Your task to perform on an android device: Open settings Image 0: 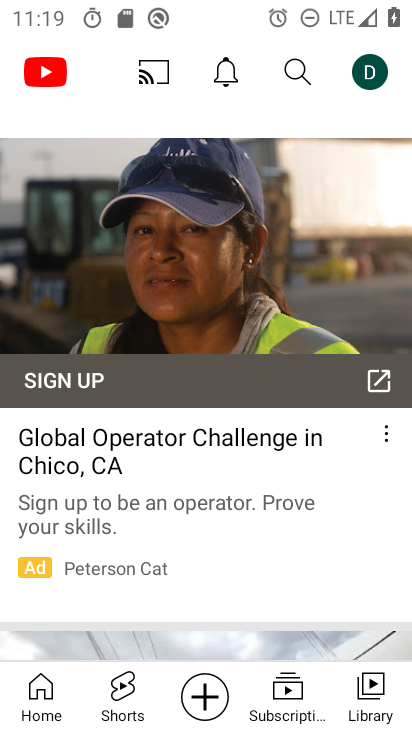
Step 0: press home button
Your task to perform on an android device: Open settings Image 1: 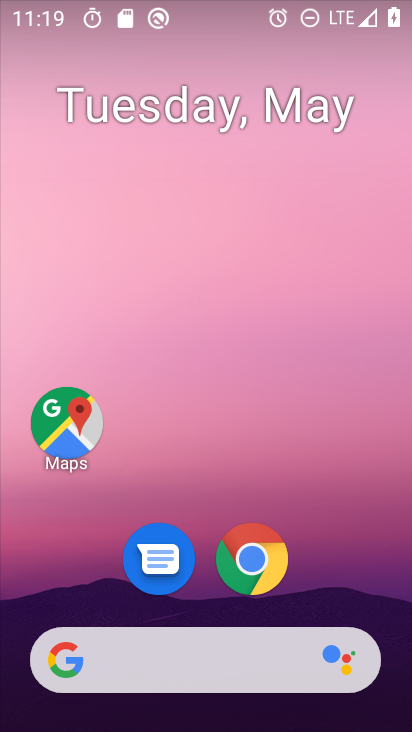
Step 1: drag from (385, 613) to (305, 46)
Your task to perform on an android device: Open settings Image 2: 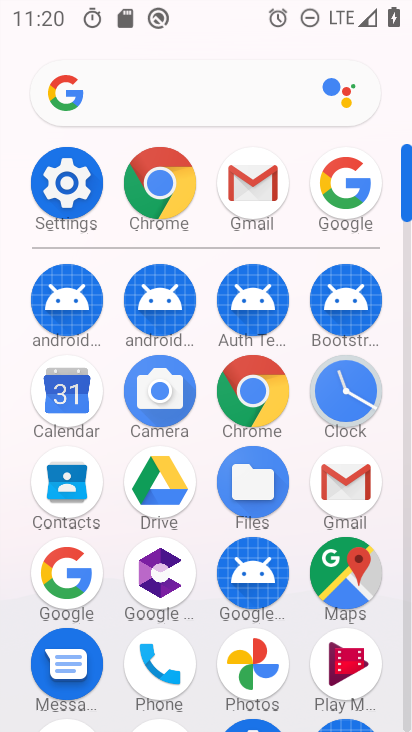
Step 2: click (82, 181)
Your task to perform on an android device: Open settings Image 3: 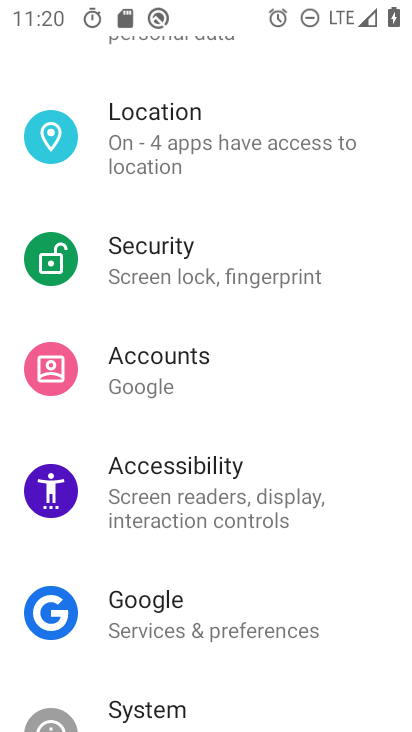
Step 3: task complete